Your task to perform on an android device: Open Youtube and go to the subscriptions tab Image 0: 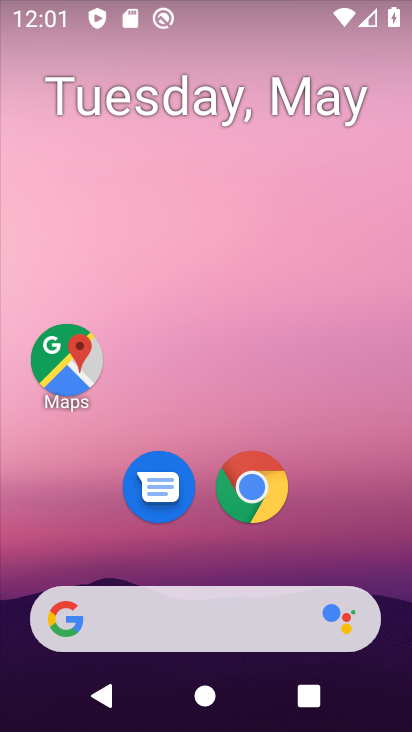
Step 0: drag from (329, 481) to (312, 137)
Your task to perform on an android device: Open Youtube and go to the subscriptions tab Image 1: 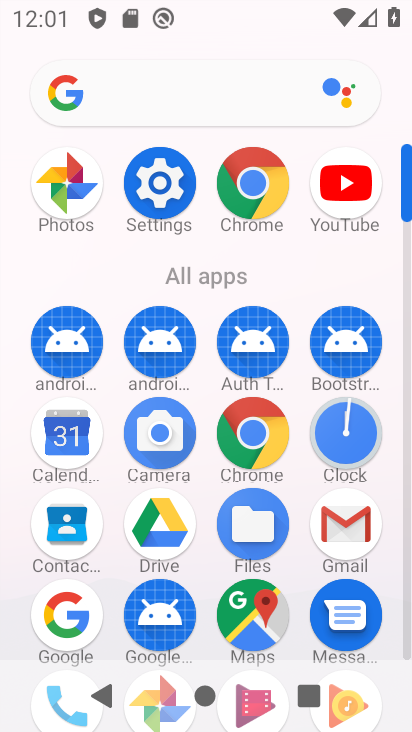
Step 1: click (350, 199)
Your task to perform on an android device: Open Youtube and go to the subscriptions tab Image 2: 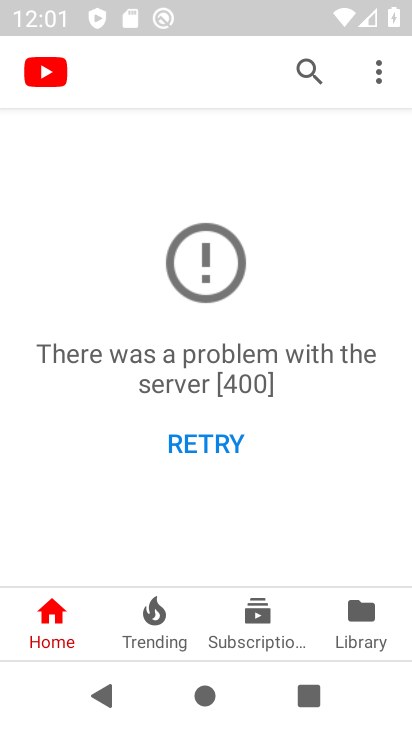
Step 2: click (251, 616)
Your task to perform on an android device: Open Youtube and go to the subscriptions tab Image 3: 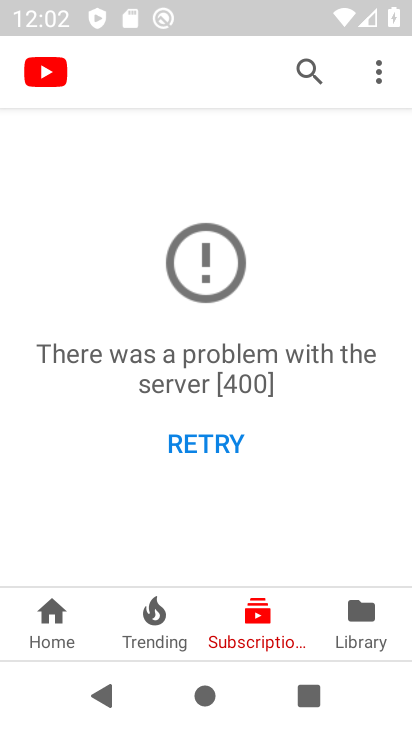
Step 3: task complete